Your task to perform on an android device: move an email to a new category in the gmail app Image 0: 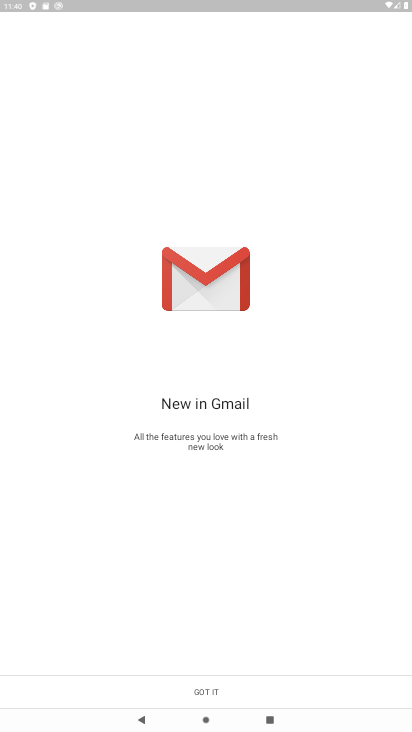
Step 0: click (207, 689)
Your task to perform on an android device: move an email to a new category in the gmail app Image 1: 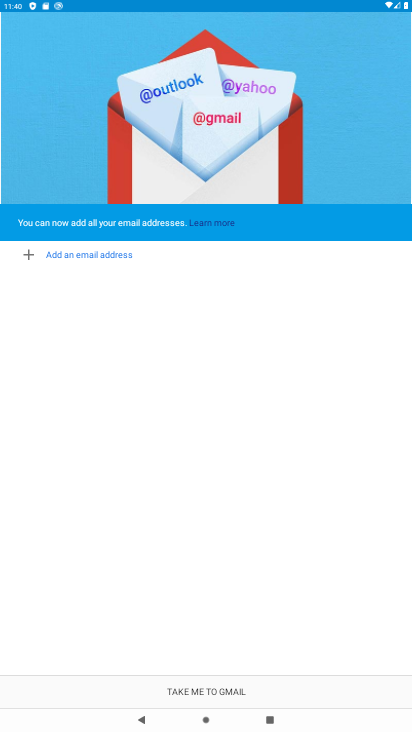
Step 1: click (183, 692)
Your task to perform on an android device: move an email to a new category in the gmail app Image 2: 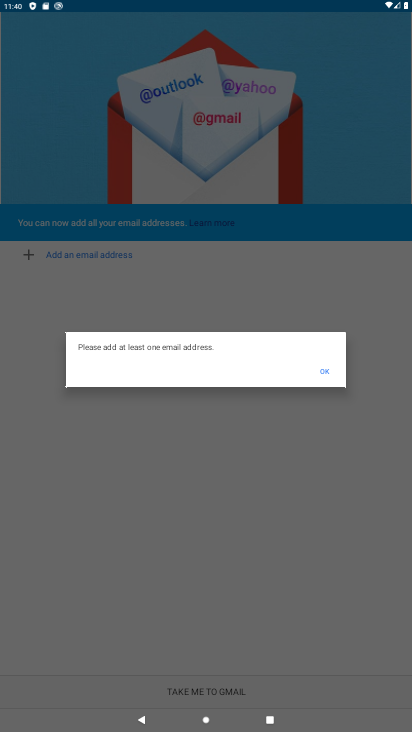
Step 2: click (320, 373)
Your task to perform on an android device: move an email to a new category in the gmail app Image 3: 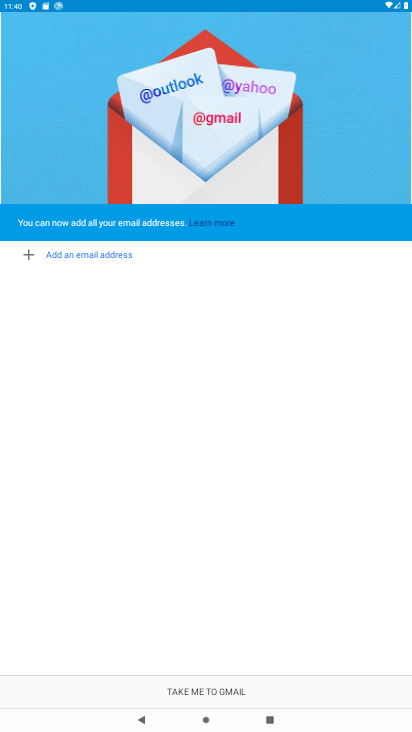
Step 3: click (182, 695)
Your task to perform on an android device: move an email to a new category in the gmail app Image 4: 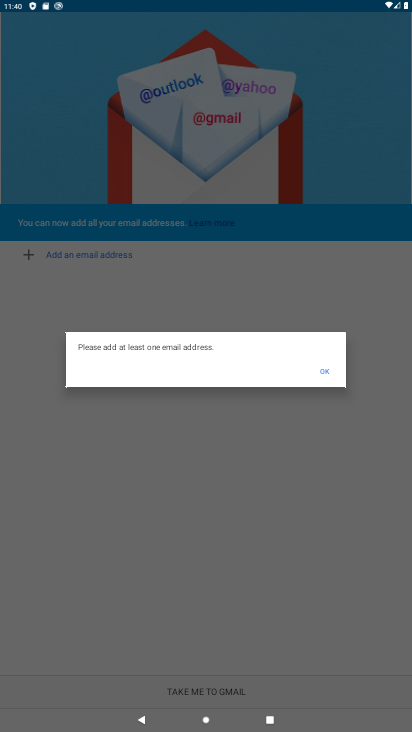
Step 4: task complete